Your task to perform on an android device: Open Google Chrome and open the bookmarks view Image 0: 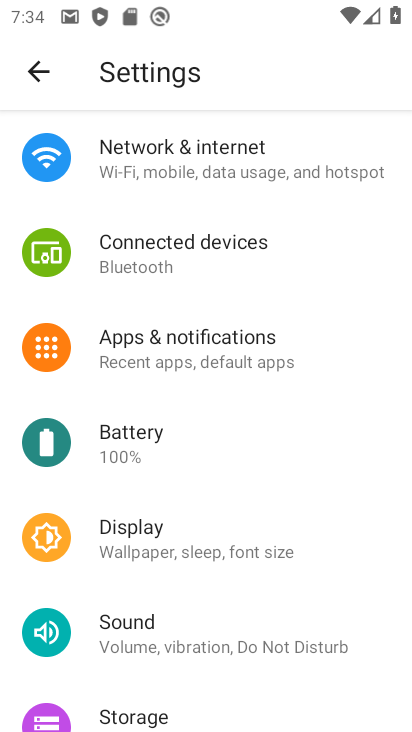
Step 0: press home button
Your task to perform on an android device: Open Google Chrome and open the bookmarks view Image 1: 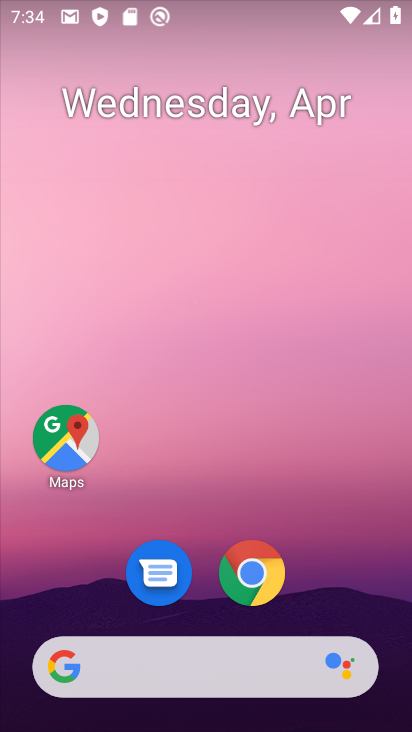
Step 1: click (245, 575)
Your task to perform on an android device: Open Google Chrome and open the bookmarks view Image 2: 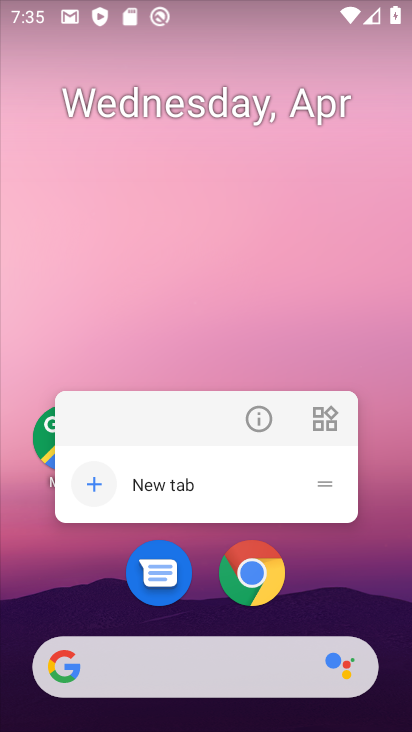
Step 2: click (246, 571)
Your task to perform on an android device: Open Google Chrome and open the bookmarks view Image 3: 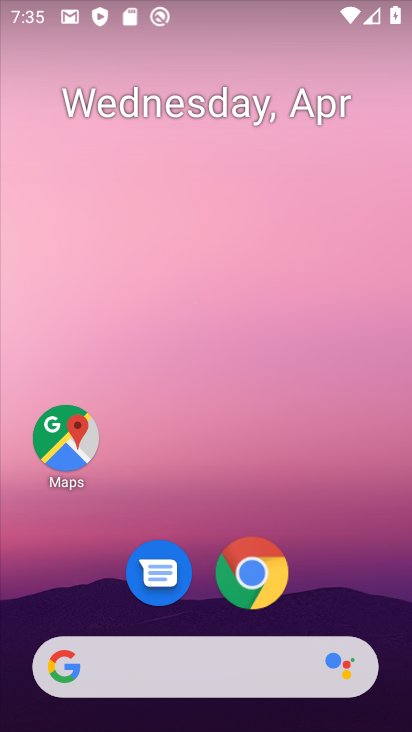
Step 3: click (342, 284)
Your task to perform on an android device: Open Google Chrome and open the bookmarks view Image 4: 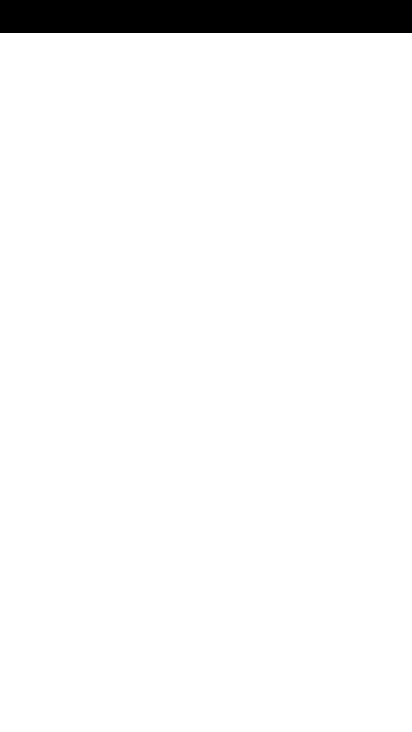
Step 4: click (228, 571)
Your task to perform on an android device: Open Google Chrome and open the bookmarks view Image 5: 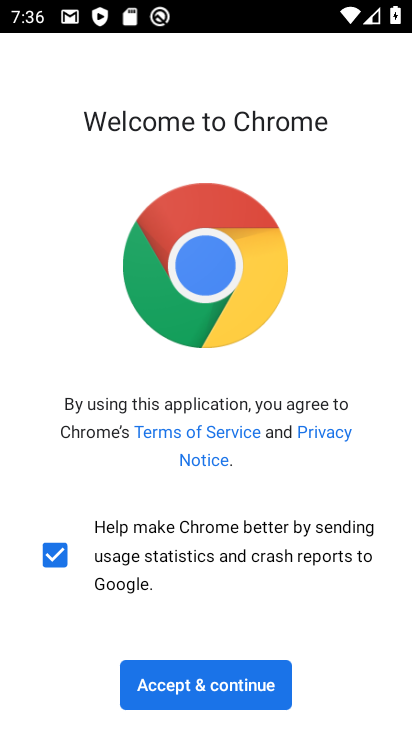
Step 5: click (179, 677)
Your task to perform on an android device: Open Google Chrome and open the bookmarks view Image 6: 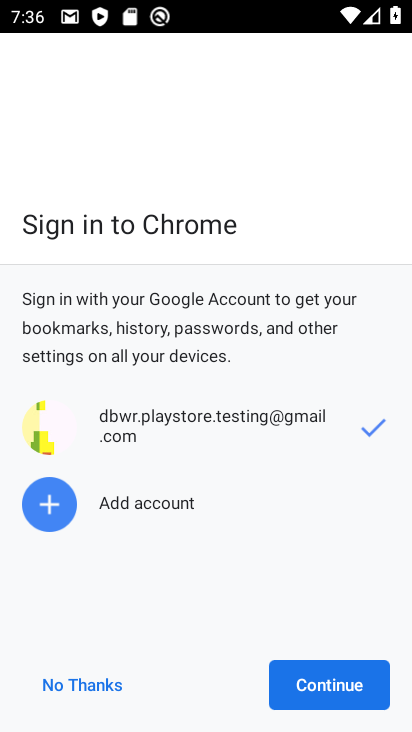
Step 6: click (96, 677)
Your task to perform on an android device: Open Google Chrome and open the bookmarks view Image 7: 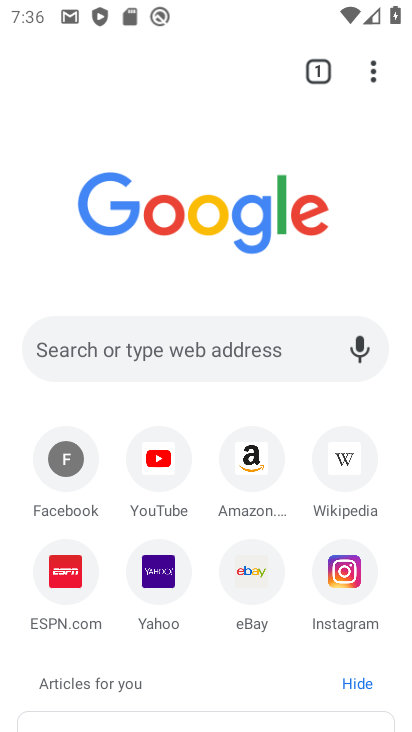
Step 7: click (373, 71)
Your task to perform on an android device: Open Google Chrome and open the bookmarks view Image 8: 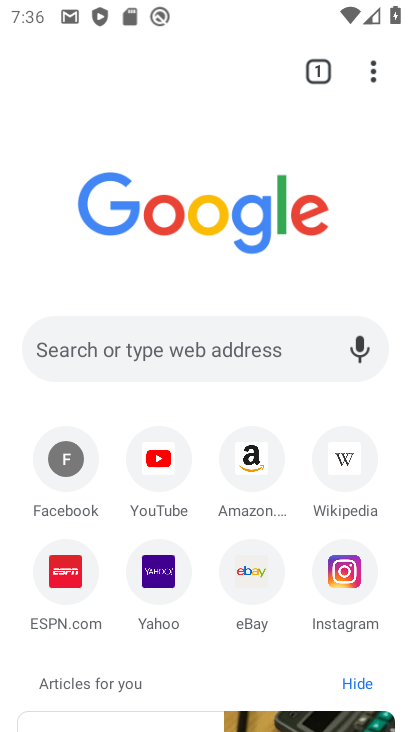
Step 8: click (372, 72)
Your task to perform on an android device: Open Google Chrome and open the bookmarks view Image 9: 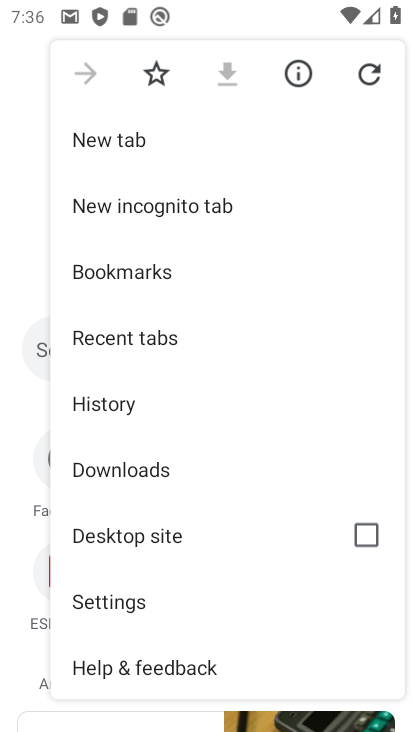
Step 9: click (158, 267)
Your task to perform on an android device: Open Google Chrome and open the bookmarks view Image 10: 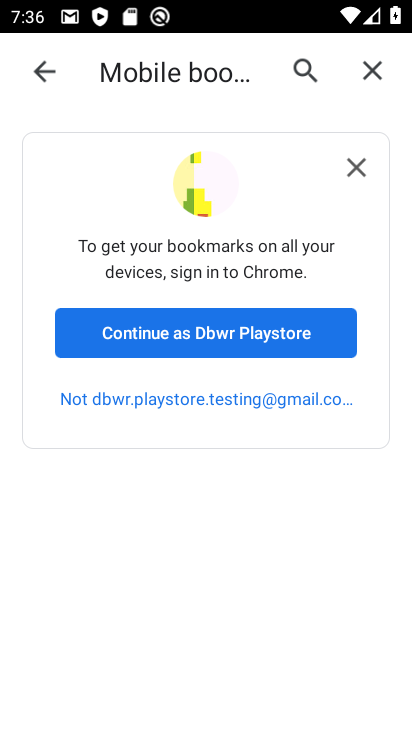
Step 10: click (357, 160)
Your task to perform on an android device: Open Google Chrome and open the bookmarks view Image 11: 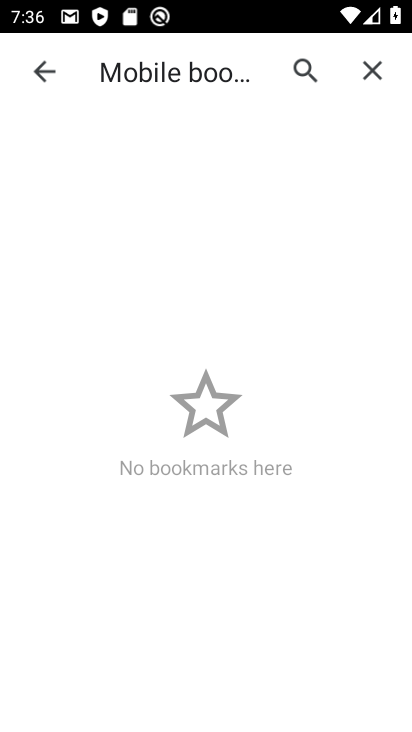
Step 11: task complete